Your task to perform on an android device: Do I have any events this weekend? Image 0: 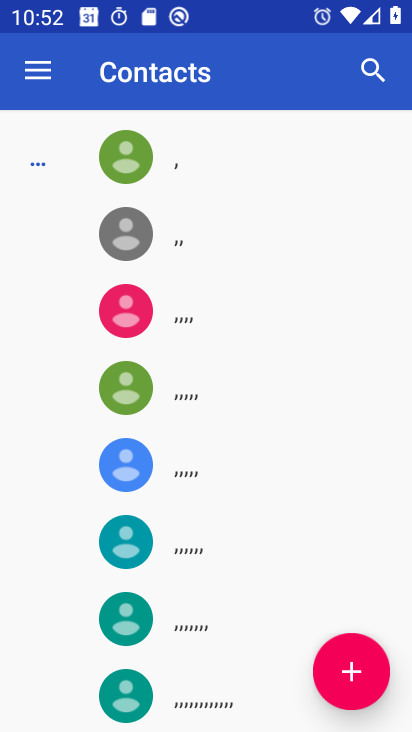
Step 0: press home button
Your task to perform on an android device: Do I have any events this weekend? Image 1: 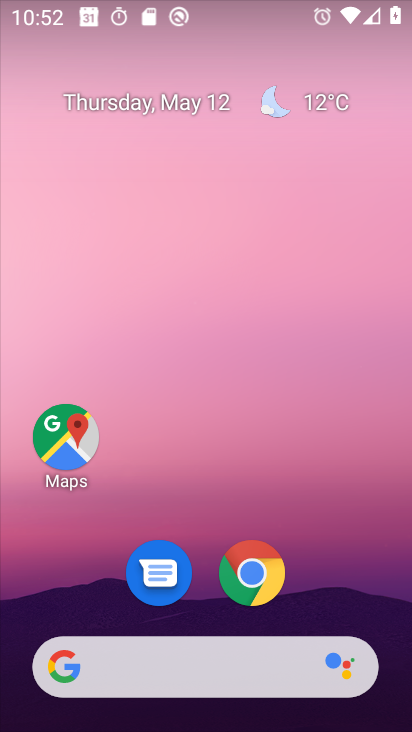
Step 1: drag from (400, 673) to (345, 207)
Your task to perform on an android device: Do I have any events this weekend? Image 2: 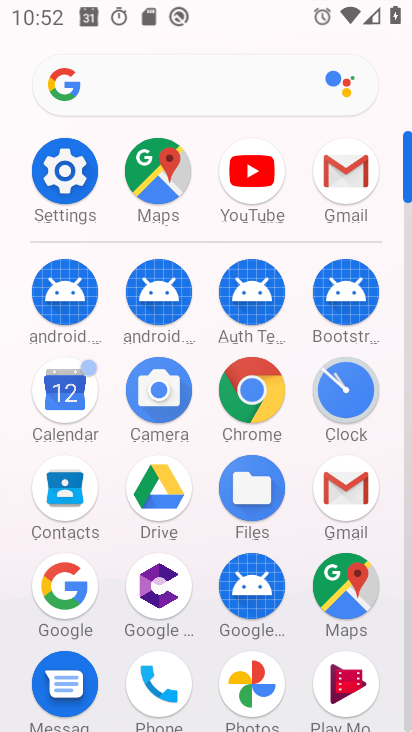
Step 2: click (70, 402)
Your task to perform on an android device: Do I have any events this weekend? Image 3: 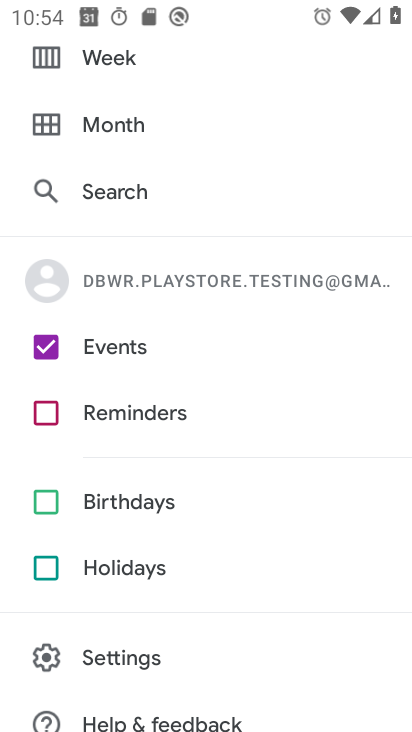
Step 3: click (95, 61)
Your task to perform on an android device: Do I have any events this weekend? Image 4: 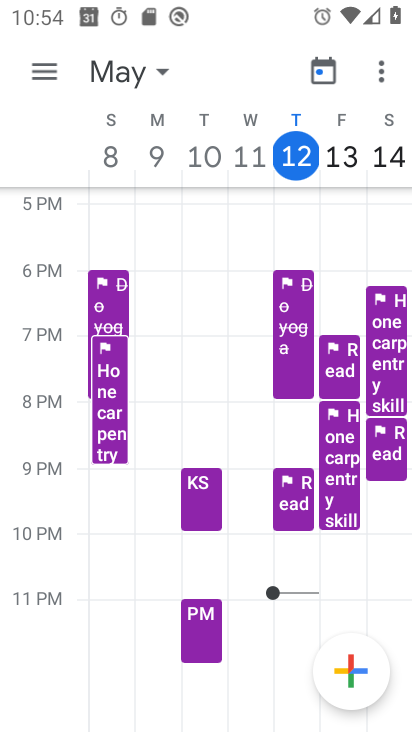
Step 4: task complete